Your task to perform on an android device: turn pop-ups off in chrome Image 0: 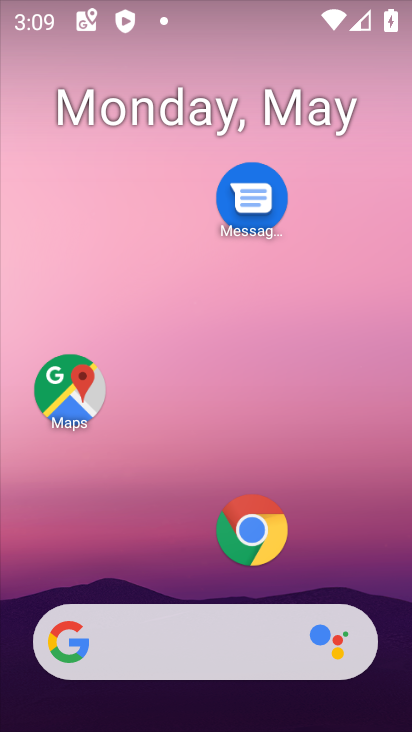
Step 0: click (261, 532)
Your task to perform on an android device: turn pop-ups off in chrome Image 1: 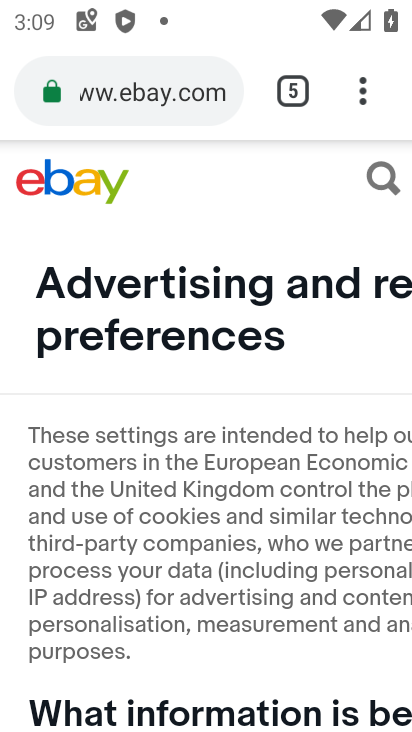
Step 1: drag from (362, 88) to (142, 558)
Your task to perform on an android device: turn pop-ups off in chrome Image 2: 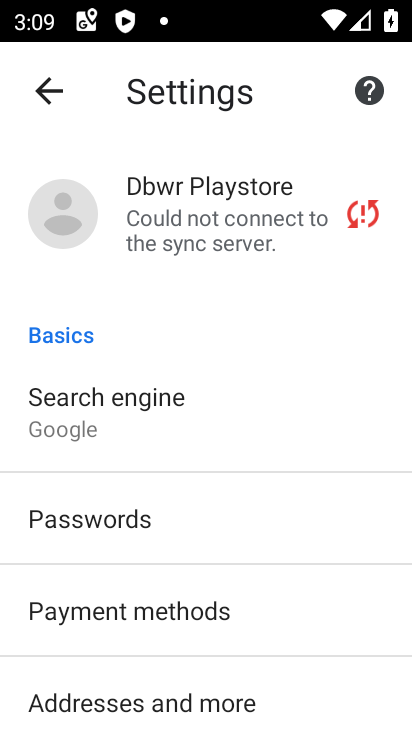
Step 2: drag from (195, 676) to (330, 117)
Your task to perform on an android device: turn pop-ups off in chrome Image 3: 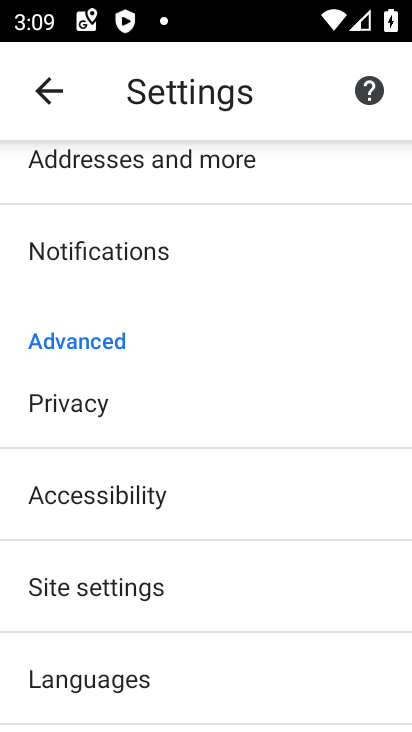
Step 3: click (166, 577)
Your task to perform on an android device: turn pop-ups off in chrome Image 4: 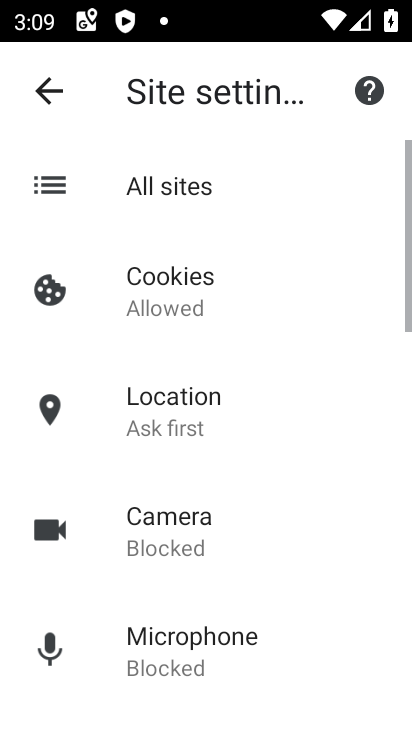
Step 4: drag from (188, 627) to (295, 70)
Your task to perform on an android device: turn pop-ups off in chrome Image 5: 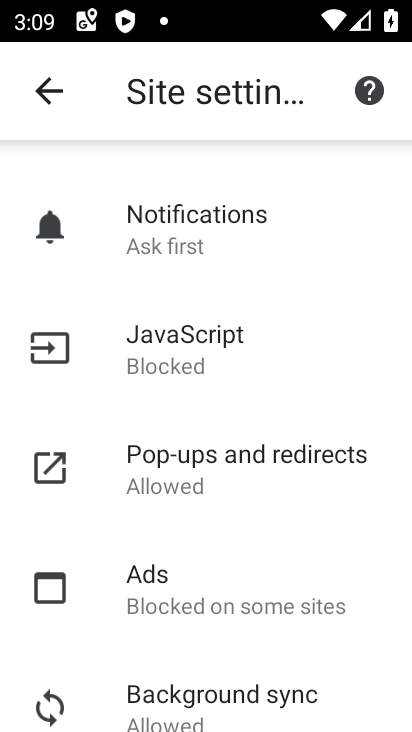
Step 5: drag from (172, 666) to (250, 385)
Your task to perform on an android device: turn pop-ups off in chrome Image 6: 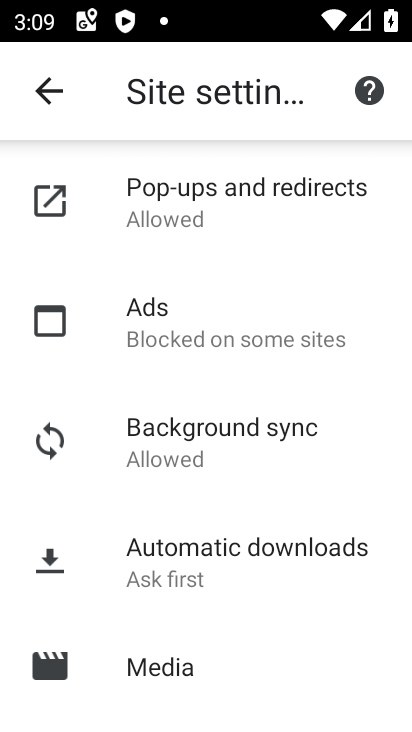
Step 6: click (190, 177)
Your task to perform on an android device: turn pop-ups off in chrome Image 7: 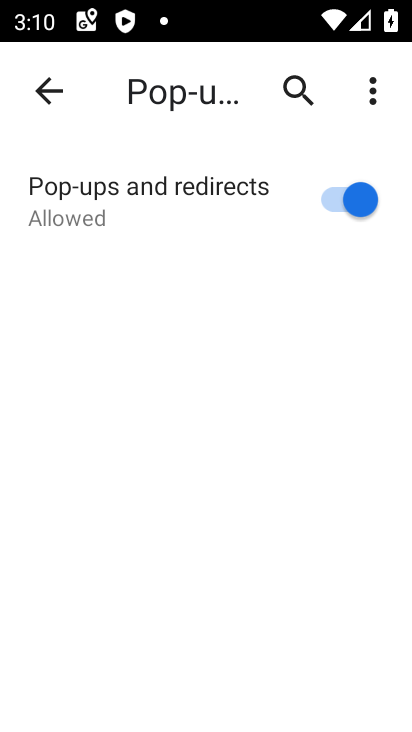
Step 7: click (342, 205)
Your task to perform on an android device: turn pop-ups off in chrome Image 8: 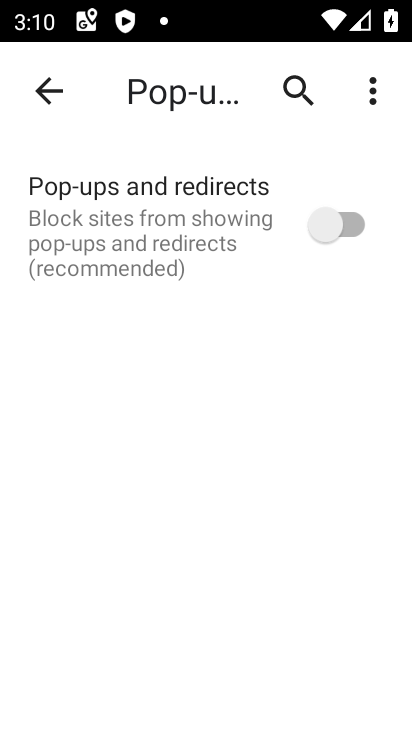
Step 8: task complete